Your task to perform on an android device: empty trash in google photos Image 0: 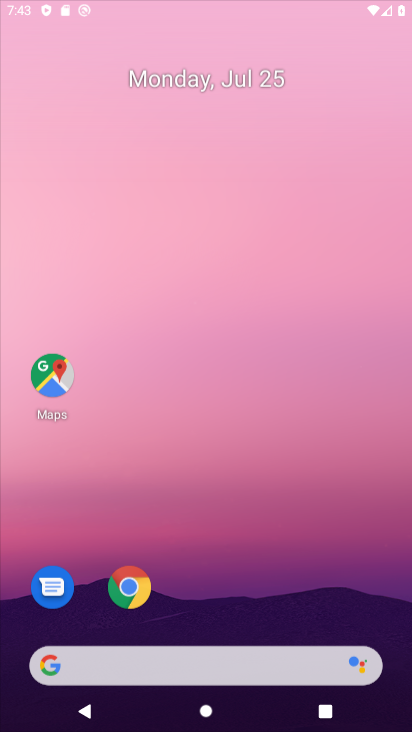
Step 0: drag from (242, 515) to (210, 85)
Your task to perform on an android device: empty trash in google photos Image 1: 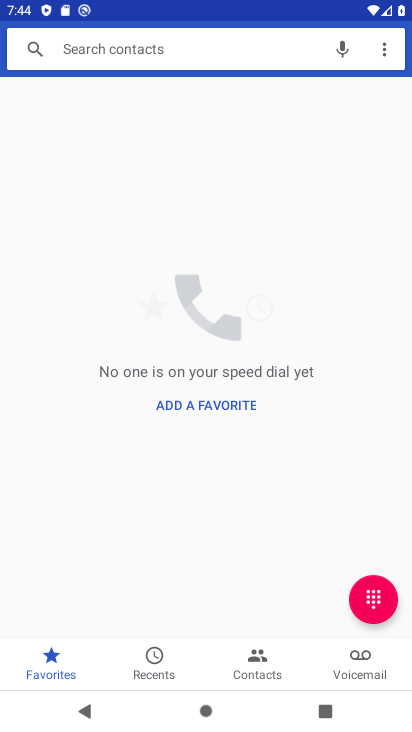
Step 1: press home button
Your task to perform on an android device: empty trash in google photos Image 2: 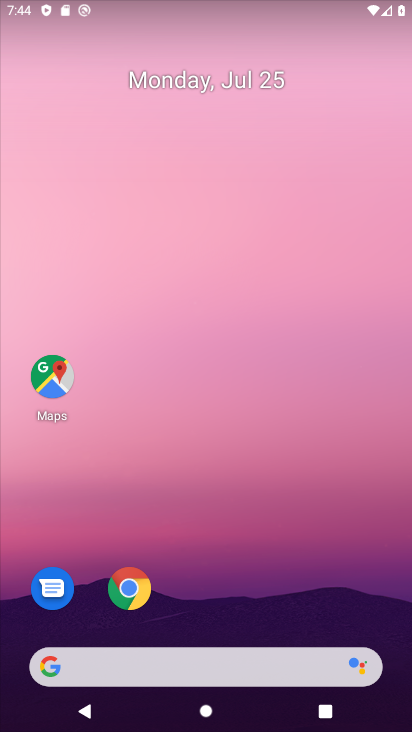
Step 2: drag from (164, 647) to (171, 142)
Your task to perform on an android device: empty trash in google photos Image 3: 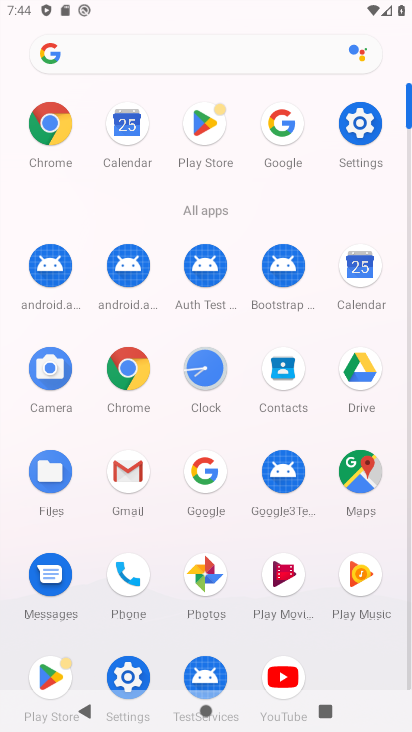
Step 3: click (201, 574)
Your task to perform on an android device: empty trash in google photos Image 4: 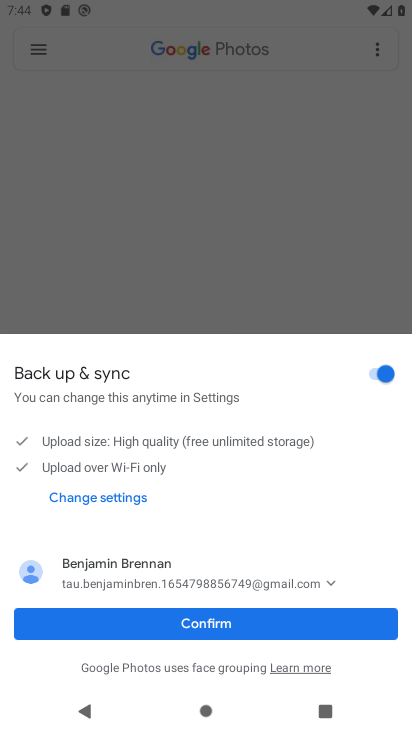
Step 4: click (213, 615)
Your task to perform on an android device: empty trash in google photos Image 5: 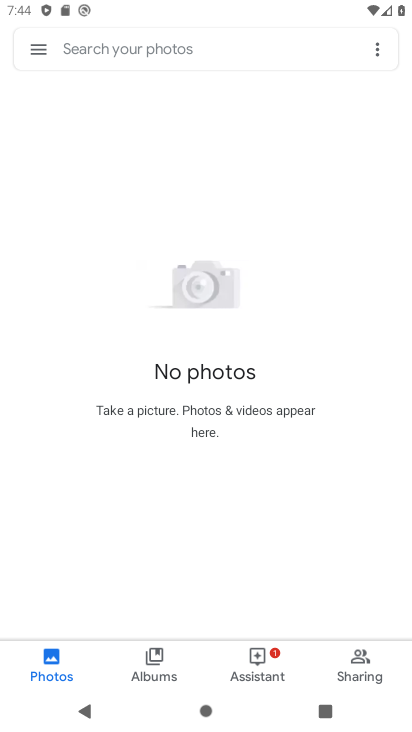
Step 5: click (32, 53)
Your task to perform on an android device: empty trash in google photos Image 6: 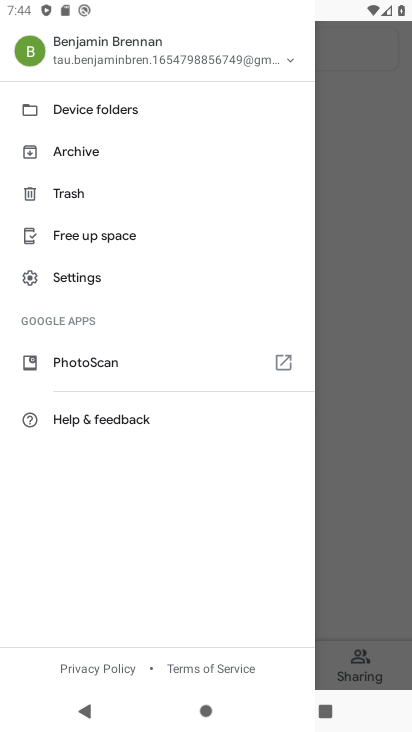
Step 6: click (64, 193)
Your task to perform on an android device: empty trash in google photos Image 7: 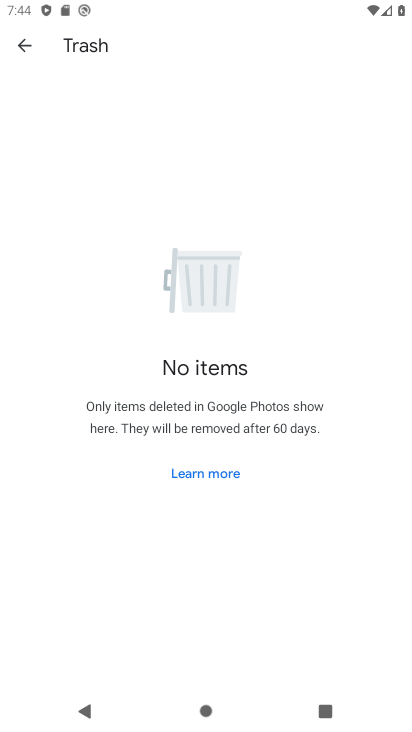
Step 7: task complete